Your task to perform on an android device: clear all cookies in the chrome app Image 0: 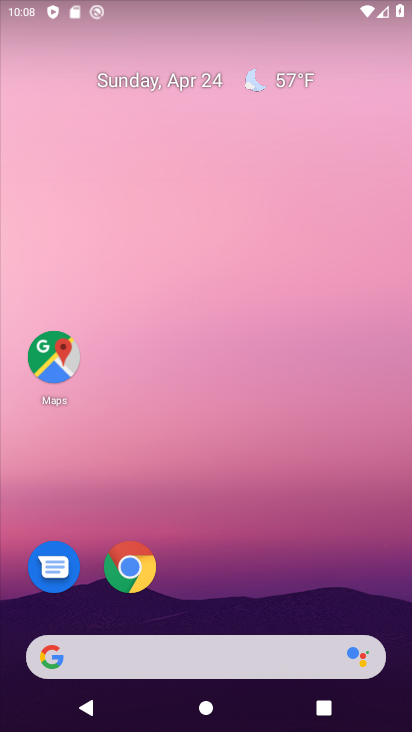
Step 0: click (377, 265)
Your task to perform on an android device: clear all cookies in the chrome app Image 1: 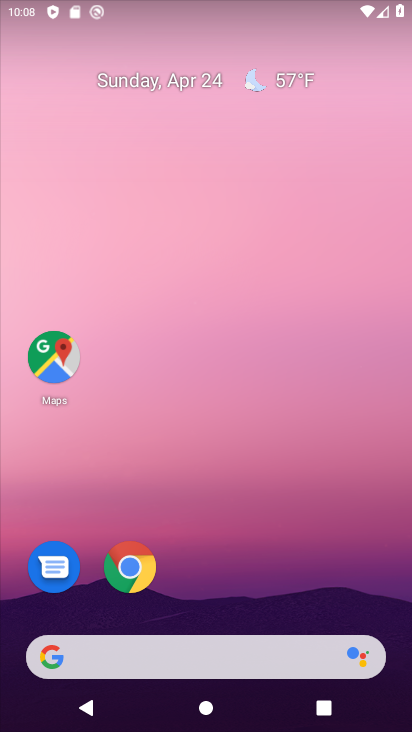
Step 1: click (121, 564)
Your task to perform on an android device: clear all cookies in the chrome app Image 2: 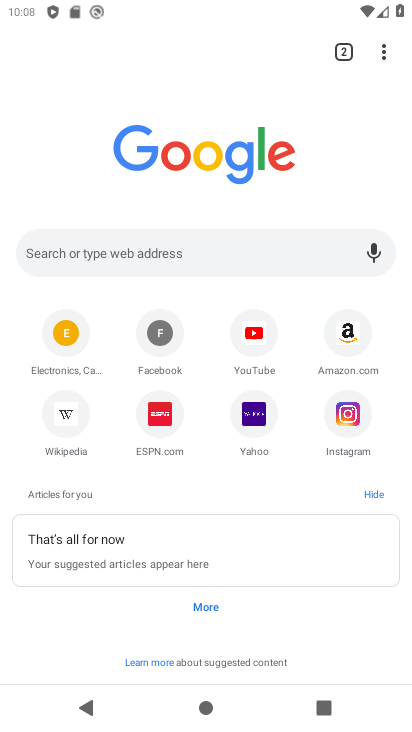
Step 2: click (378, 49)
Your task to perform on an android device: clear all cookies in the chrome app Image 3: 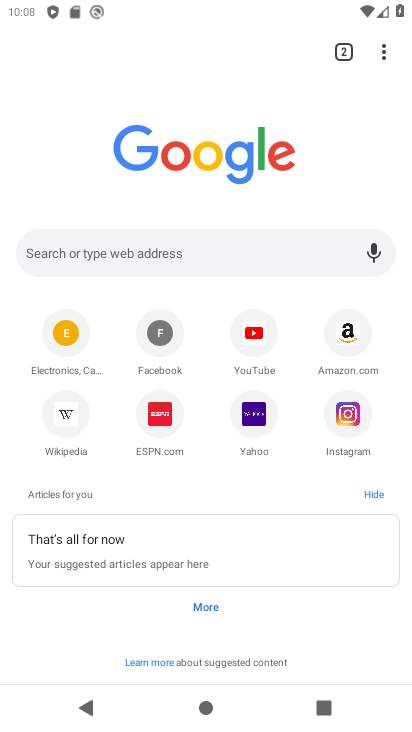
Step 3: click (384, 45)
Your task to perform on an android device: clear all cookies in the chrome app Image 4: 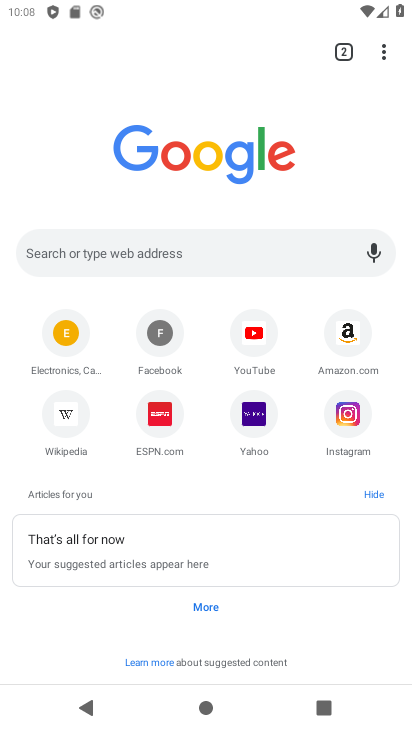
Step 4: click (383, 45)
Your task to perform on an android device: clear all cookies in the chrome app Image 5: 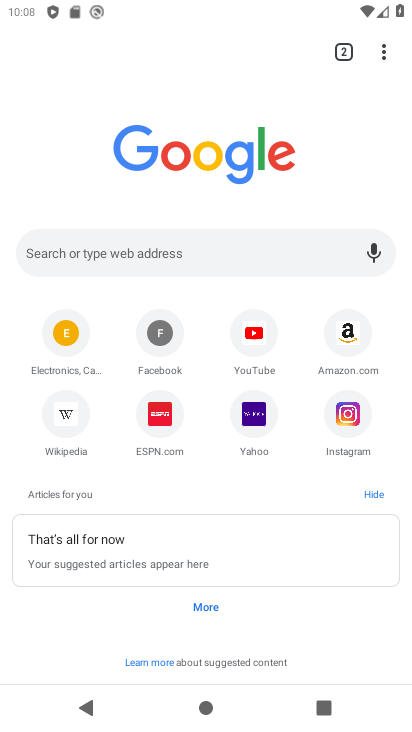
Step 5: click (383, 45)
Your task to perform on an android device: clear all cookies in the chrome app Image 6: 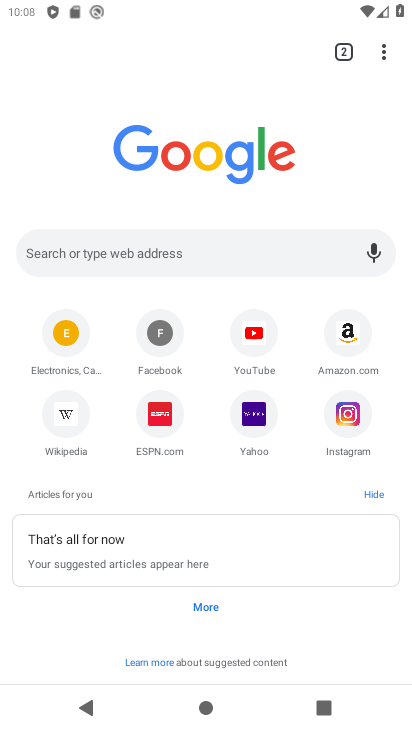
Step 6: click (383, 45)
Your task to perform on an android device: clear all cookies in the chrome app Image 7: 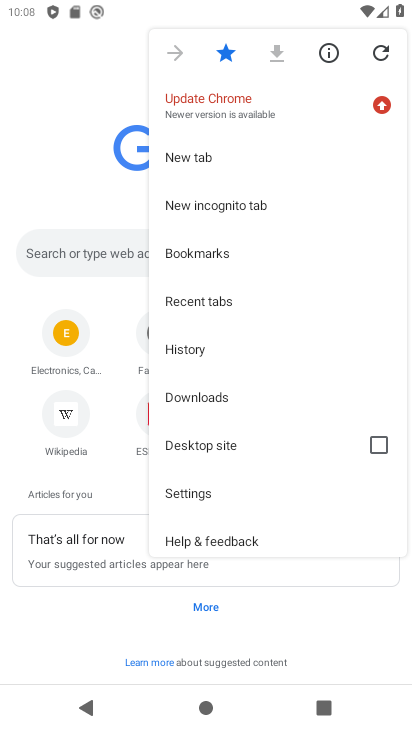
Step 7: click (187, 345)
Your task to perform on an android device: clear all cookies in the chrome app Image 8: 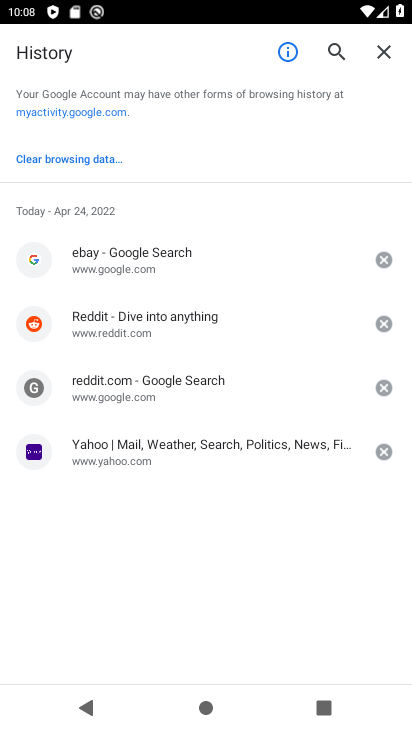
Step 8: click (71, 155)
Your task to perform on an android device: clear all cookies in the chrome app Image 9: 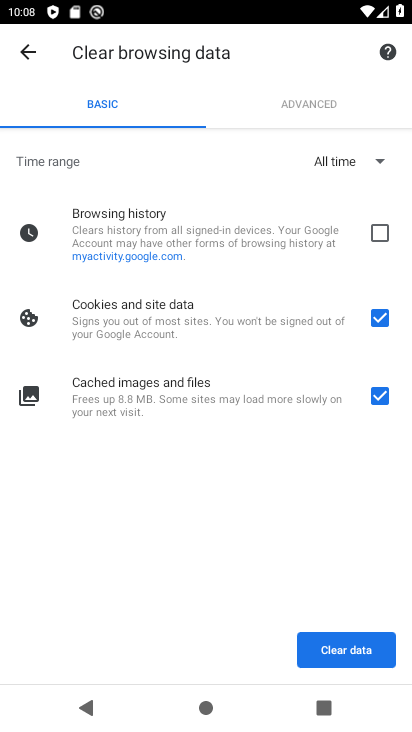
Step 9: click (320, 656)
Your task to perform on an android device: clear all cookies in the chrome app Image 10: 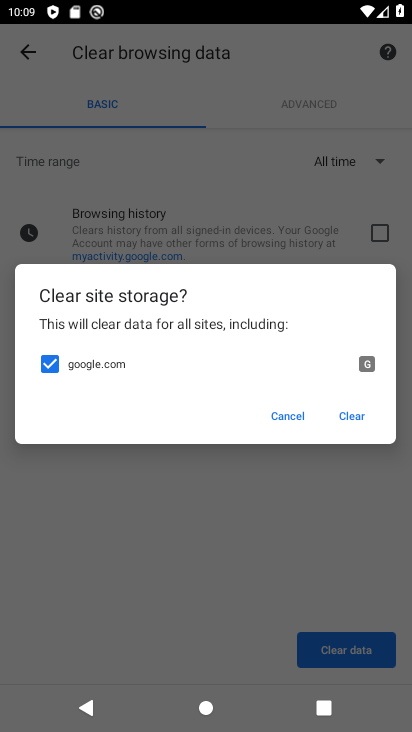
Step 10: click (356, 413)
Your task to perform on an android device: clear all cookies in the chrome app Image 11: 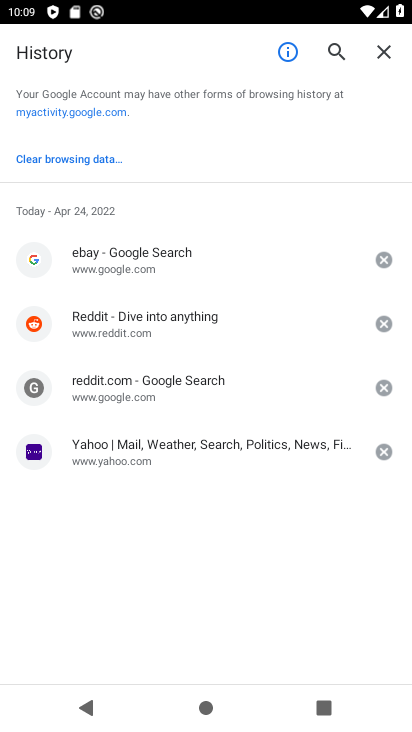
Step 11: click (67, 154)
Your task to perform on an android device: clear all cookies in the chrome app Image 12: 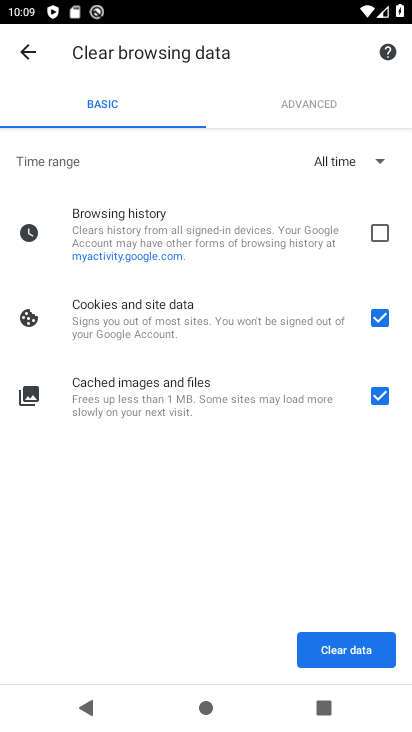
Step 12: click (334, 647)
Your task to perform on an android device: clear all cookies in the chrome app Image 13: 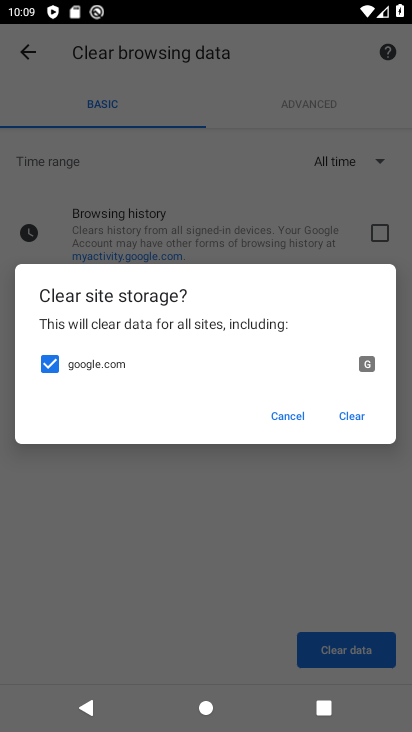
Step 13: click (357, 412)
Your task to perform on an android device: clear all cookies in the chrome app Image 14: 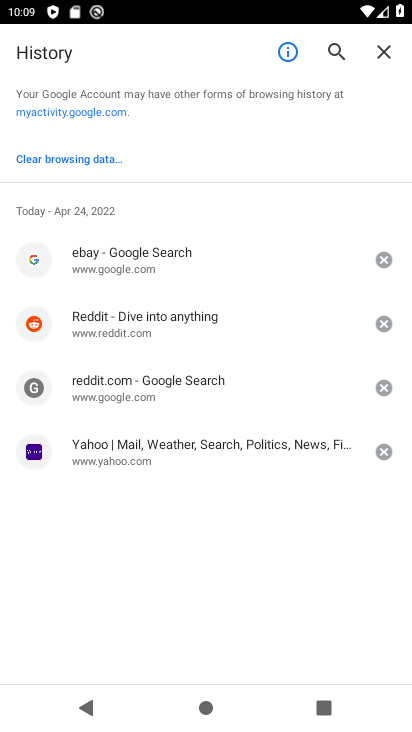
Step 14: task complete